Your task to perform on an android device: set default search engine in the chrome app Image 0: 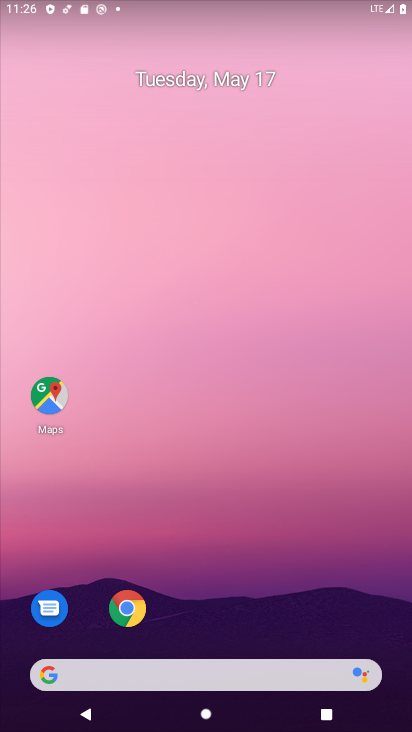
Step 0: click (139, 602)
Your task to perform on an android device: set default search engine in the chrome app Image 1: 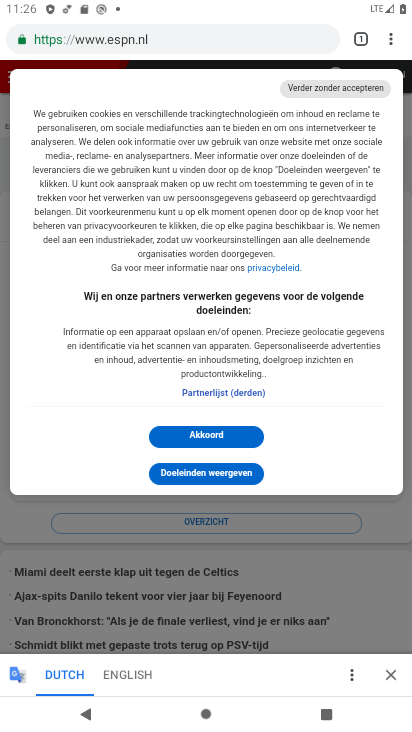
Step 1: click (383, 41)
Your task to perform on an android device: set default search engine in the chrome app Image 2: 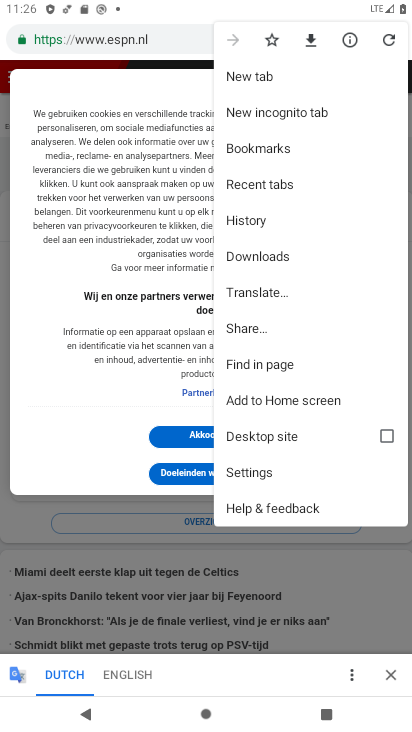
Step 2: click (262, 459)
Your task to perform on an android device: set default search engine in the chrome app Image 3: 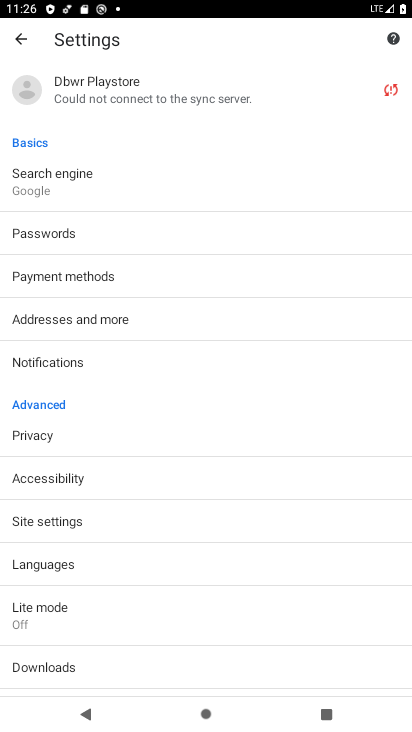
Step 3: click (107, 180)
Your task to perform on an android device: set default search engine in the chrome app Image 4: 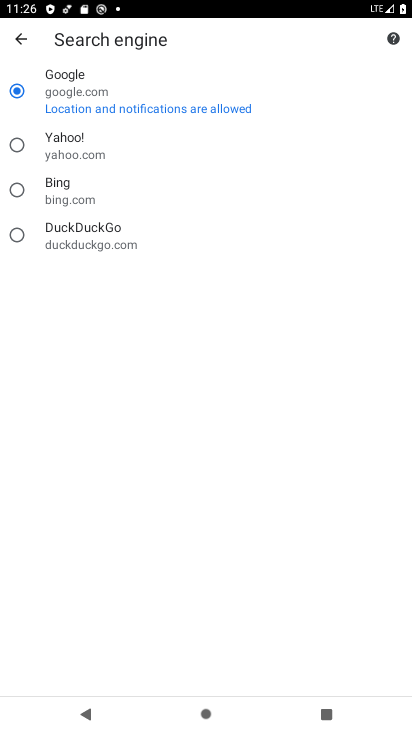
Step 4: click (124, 87)
Your task to perform on an android device: set default search engine in the chrome app Image 5: 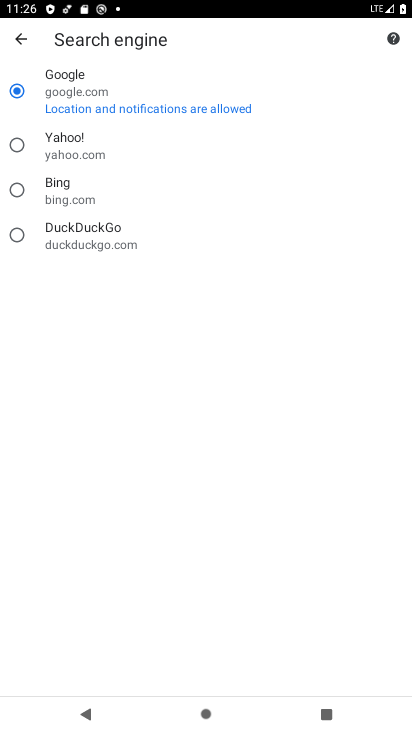
Step 5: task complete